Your task to perform on an android device: toggle priority inbox in the gmail app Image 0: 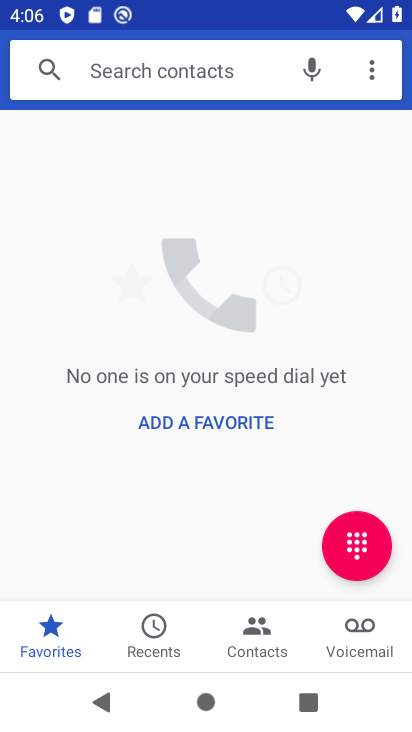
Step 0: press home button
Your task to perform on an android device: toggle priority inbox in the gmail app Image 1: 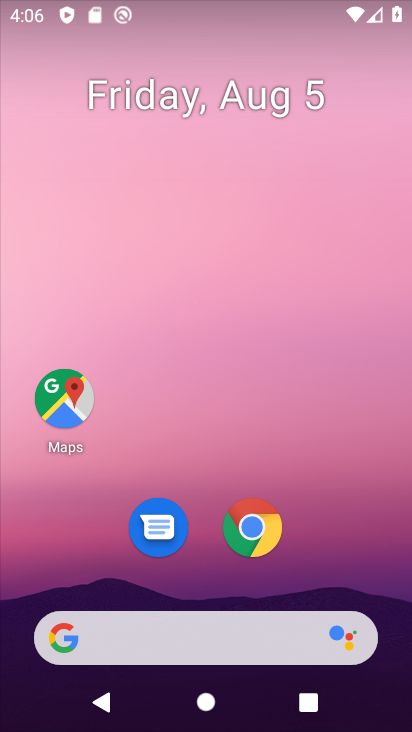
Step 1: drag from (211, 574) to (202, 73)
Your task to perform on an android device: toggle priority inbox in the gmail app Image 2: 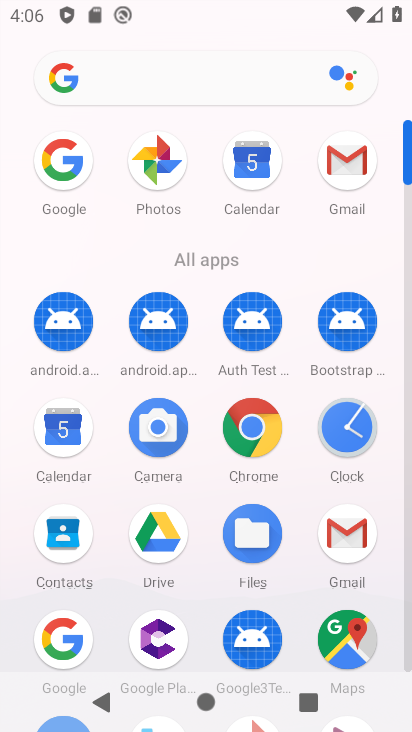
Step 2: click (342, 149)
Your task to perform on an android device: toggle priority inbox in the gmail app Image 3: 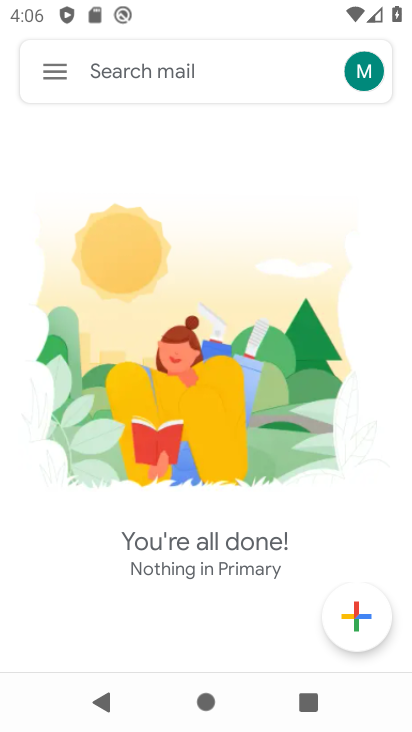
Step 3: click (46, 68)
Your task to perform on an android device: toggle priority inbox in the gmail app Image 4: 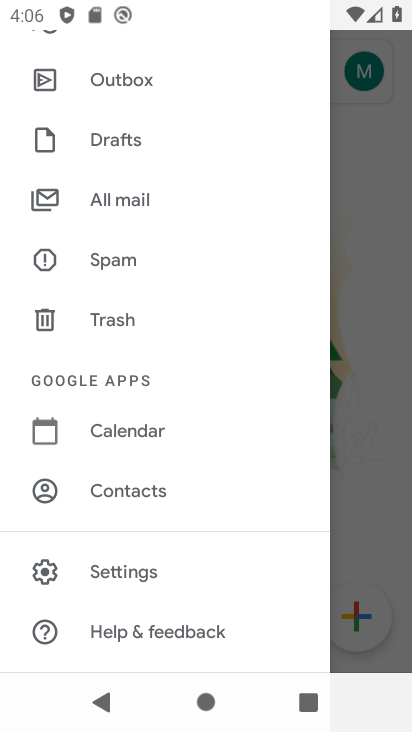
Step 4: click (150, 566)
Your task to perform on an android device: toggle priority inbox in the gmail app Image 5: 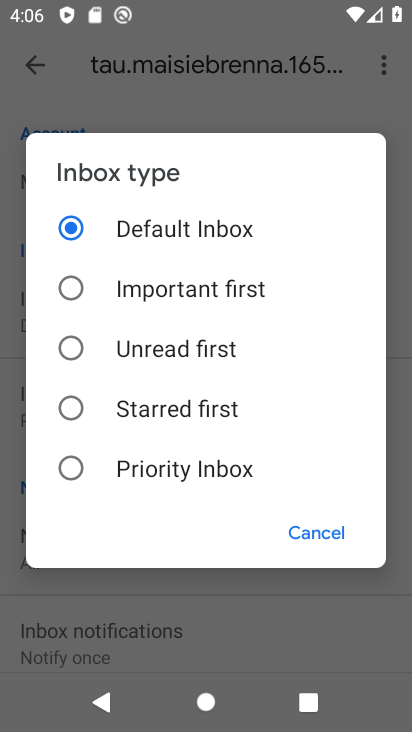
Step 5: click (72, 469)
Your task to perform on an android device: toggle priority inbox in the gmail app Image 6: 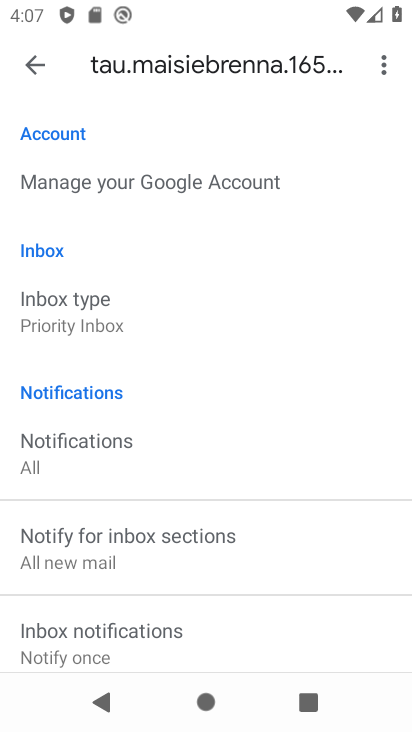
Step 6: task complete